Your task to perform on an android device: Search for vegetarian restaurants on Maps Image 0: 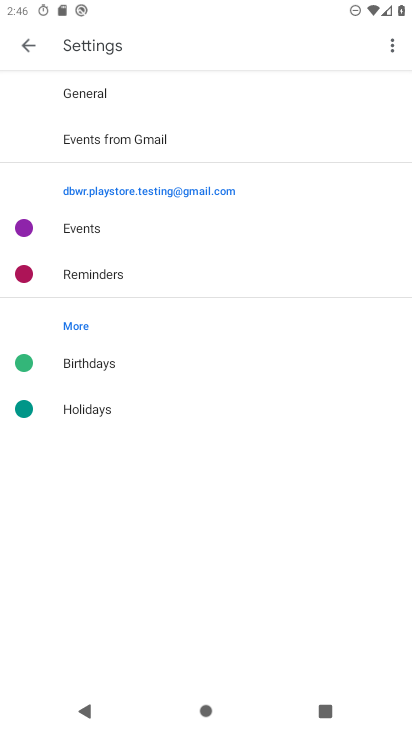
Step 0: press home button
Your task to perform on an android device: Search for vegetarian restaurants on Maps Image 1: 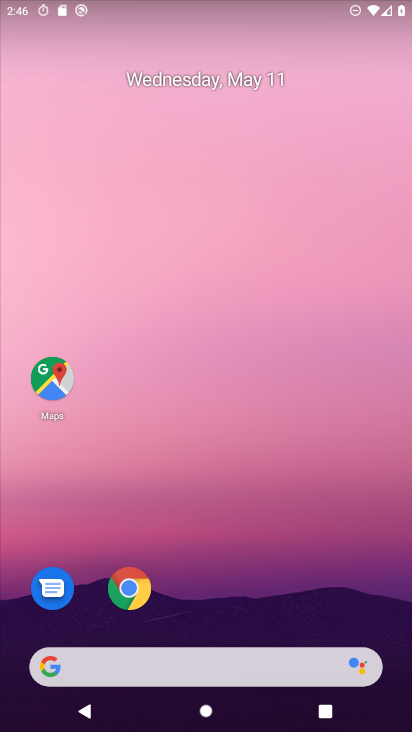
Step 1: drag from (277, 554) to (281, 58)
Your task to perform on an android device: Search for vegetarian restaurants on Maps Image 2: 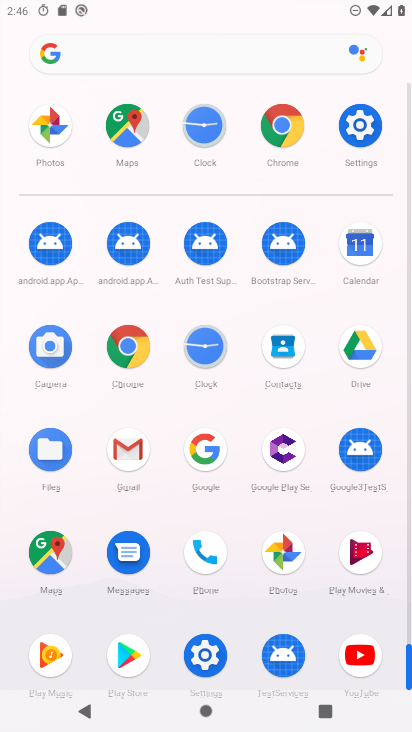
Step 2: click (44, 550)
Your task to perform on an android device: Search for vegetarian restaurants on Maps Image 3: 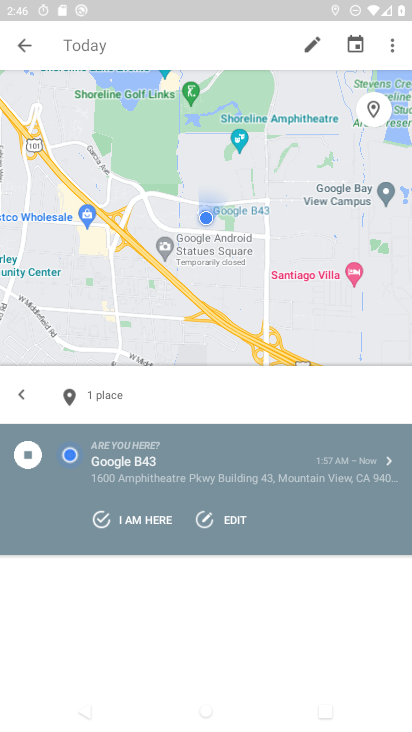
Step 3: click (30, 42)
Your task to perform on an android device: Search for vegetarian restaurants on Maps Image 4: 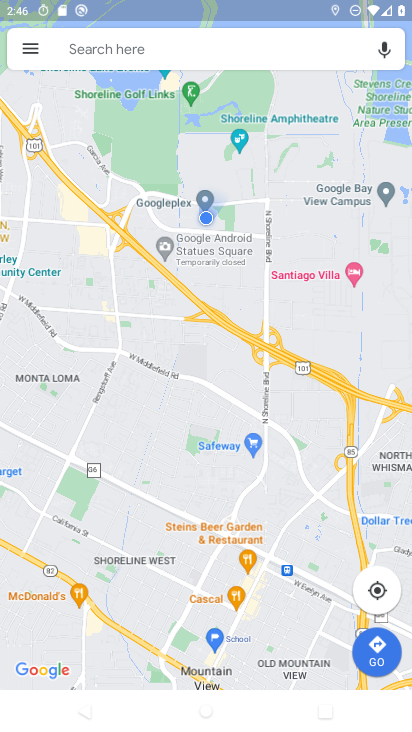
Step 4: click (123, 50)
Your task to perform on an android device: Search for vegetarian restaurants on Maps Image 5: 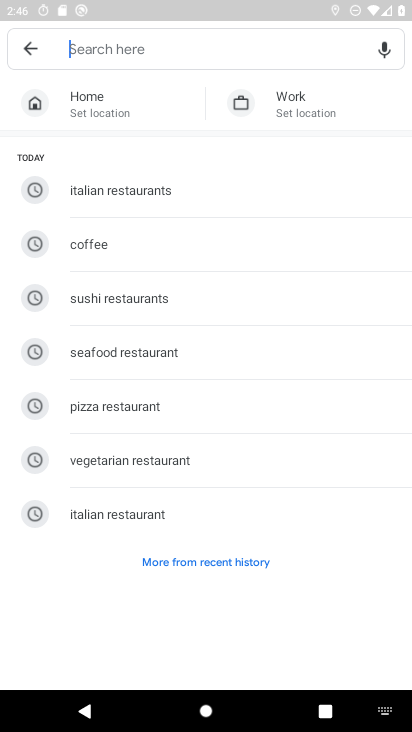
Step 5: type "vegetarian restaurants "
Your task to perform on an android device: Search for vegetarian restaurants on Maps Image 6: 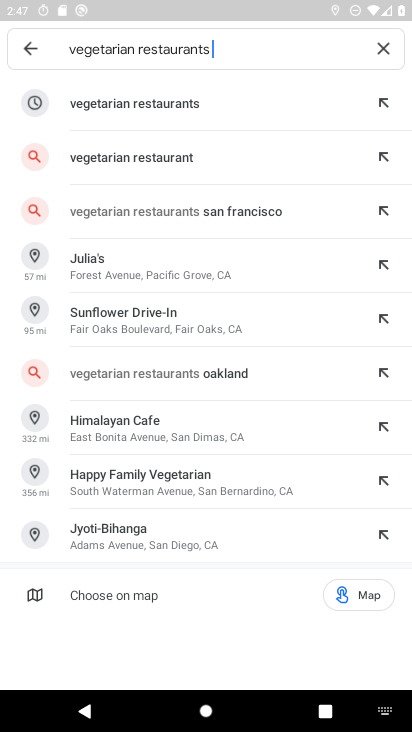
Step 6: click (101, 99)
Your task to perform on an android device: Search for vegetarian restaurants on Maps Image 7: 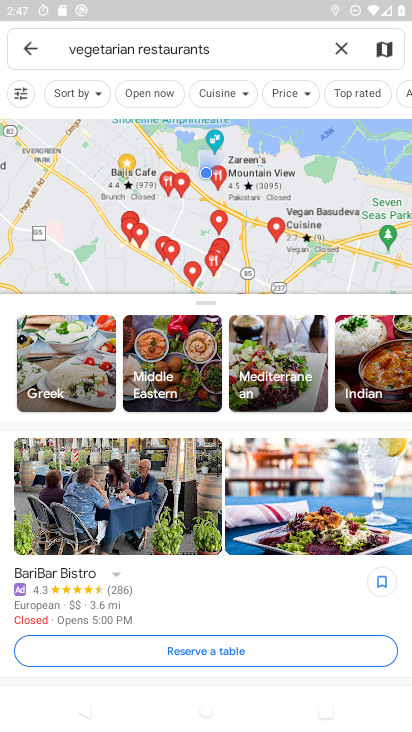
Step 7: task complete